Your task to perform on an android device: delete the emails in spam in the gmail app Image 0: 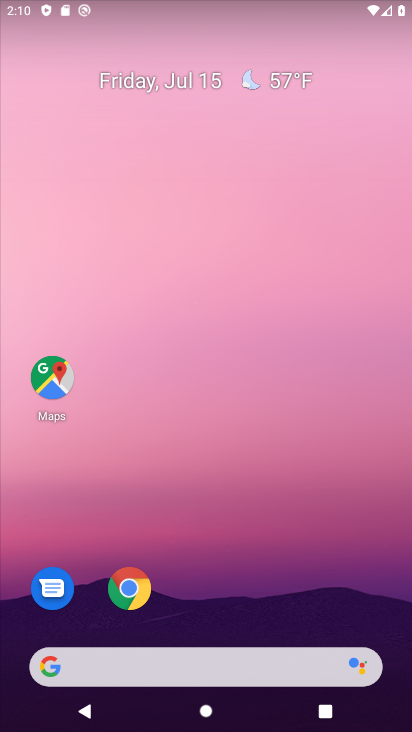
Step 0: drag from (316, 602) to (281, 0)
Your task to perform on an android device: delete the emails in spam in the gmail app Image 1: 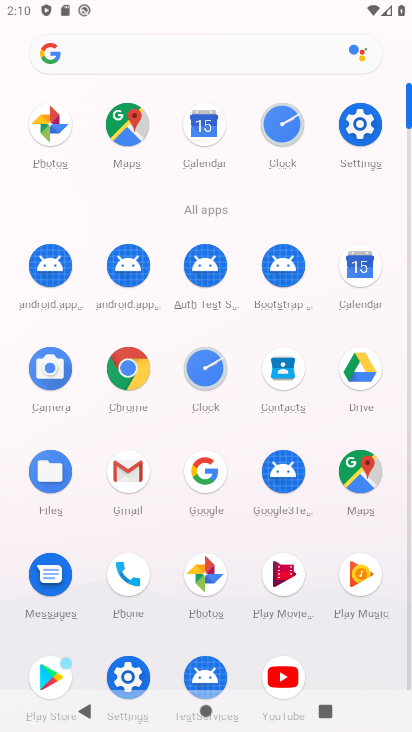
Step 1: click (133, 469)
Your task to perform on an android device: delete the emails in spam in the gmail app Image 2: 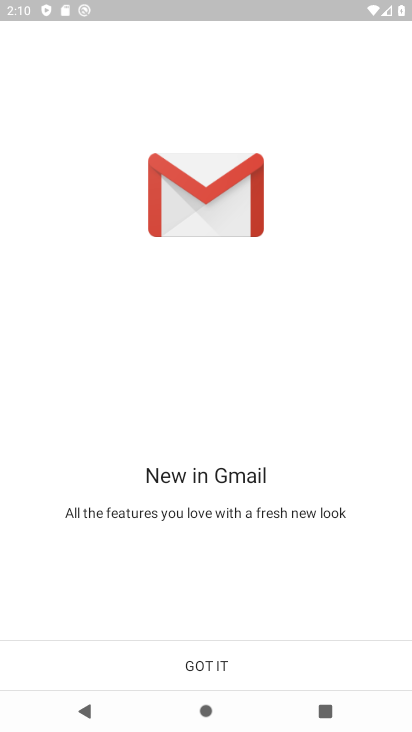
Step 2: click (208, 657)
Your task to perform on an android device: delete the emails in spam in the gmail app Image 3: 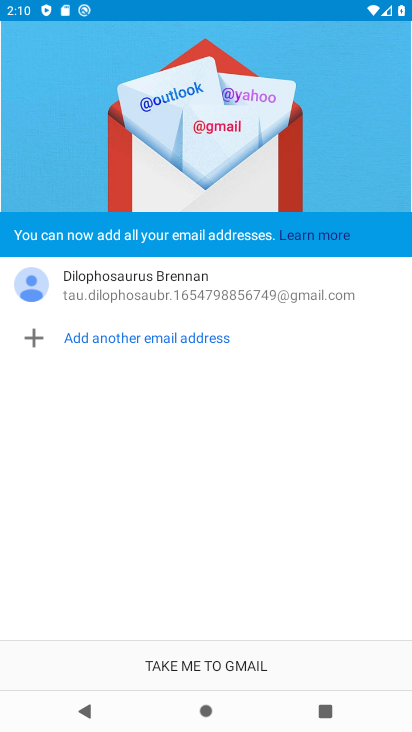
Step 3: click (181, 661)
Your task to perform on an android device: delete the emails in spam in the gmail app Image 4: 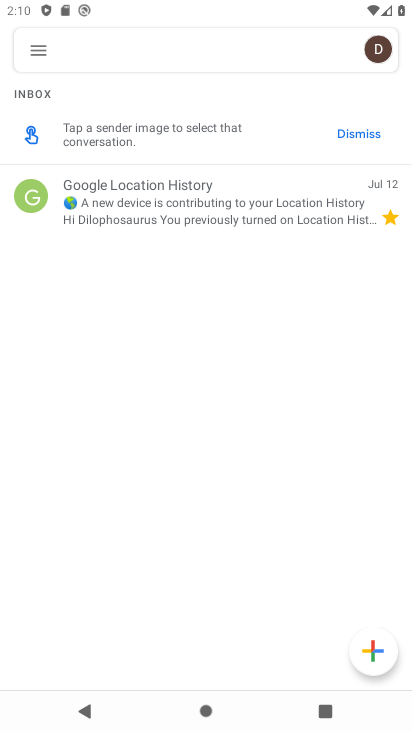
Step 4: click (33, 43)
Your task to perform on an android device: delete the emails in spam in the gmail app Image 5: 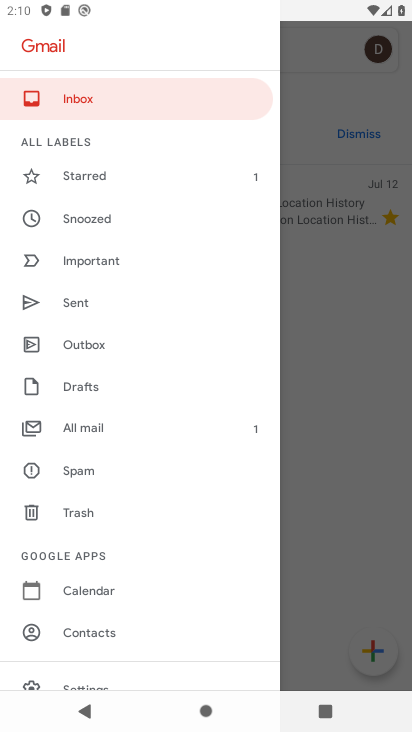
Step 5: click (143, 464)
Your task to perform on an android device: delete the emails in spam in the gmail app Image 6: 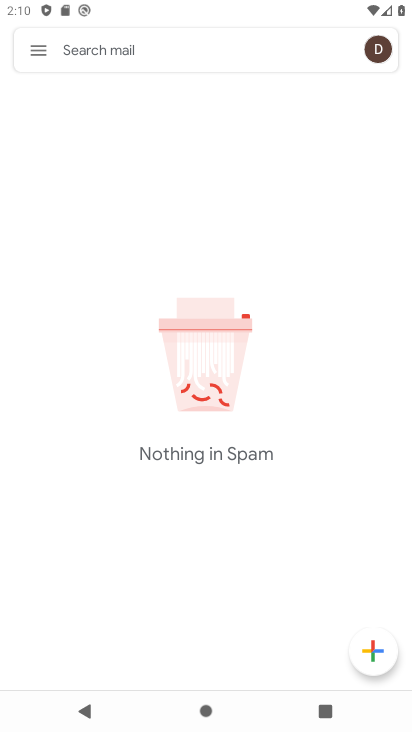
Step 6: task complete